Your task to perform on an android device: change notifications settings Image 0: 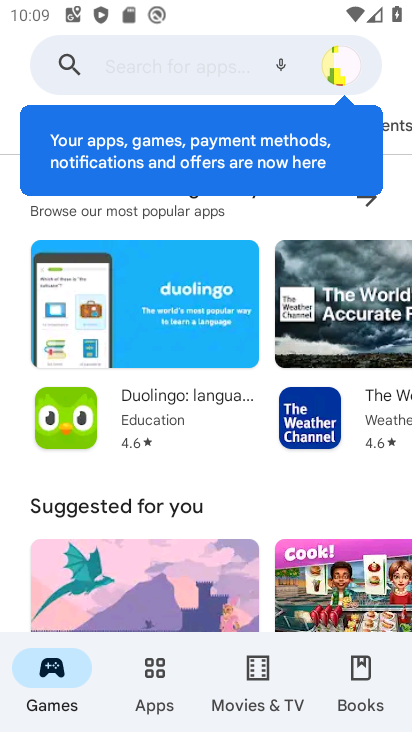
Step 0: press home button
Your task to perform on an android device: change notifications settings Image 1: 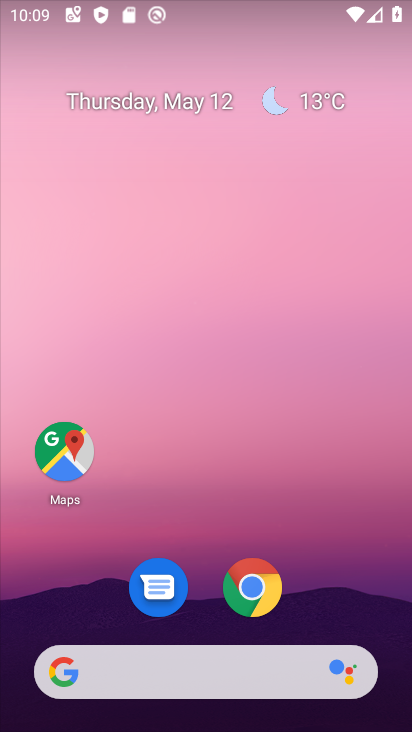
Step 1: drag from (206, 606) to (287, 49)
Your task to perform on an android device: change notifications settings Image 2: 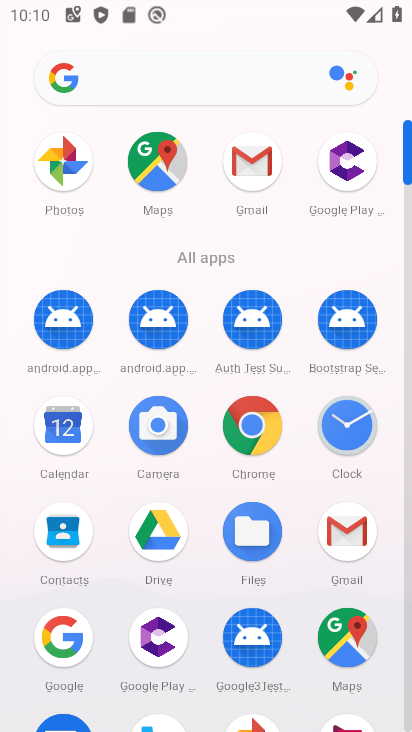
Step 2: drag from (194, 635) to (248, 250)
Your task to perform on an android device: change notifications settings Image 3: 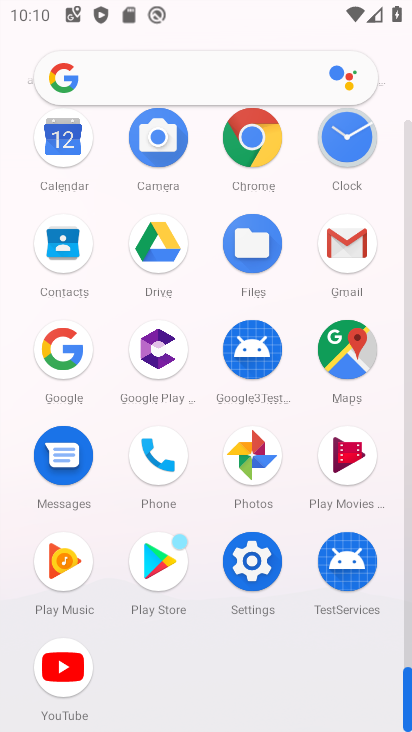
Step 3: click (249, 588)
Your task to perform on an android device: change notifications settings Image 4: 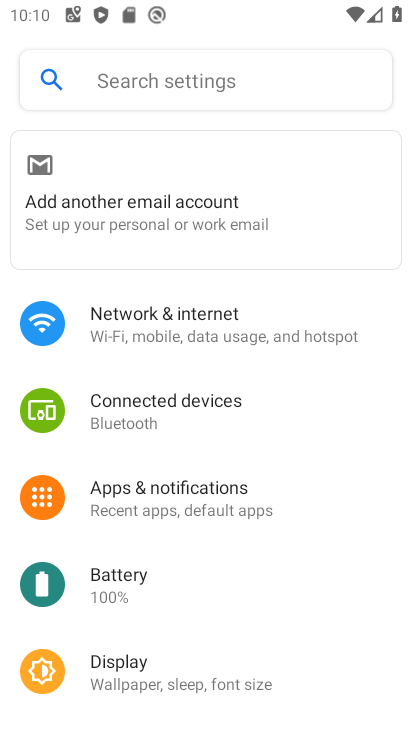
Step 4: click (191, 487)
Your task to perform on an android device: change notifications settings Image 5: 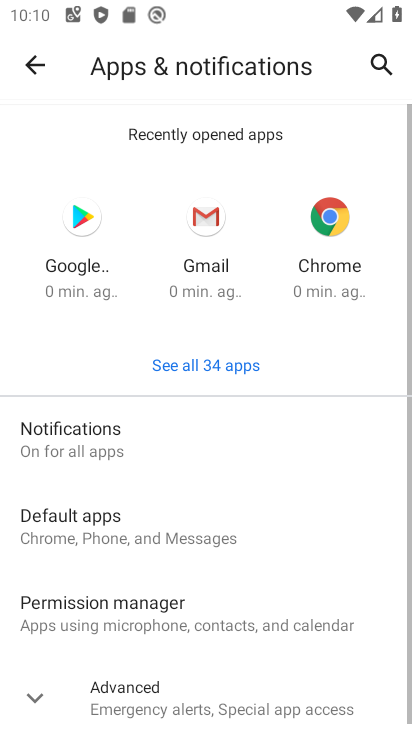
Step 5: click (132, 443)
Your task to perform on an android device: change notifications settings Image 6: 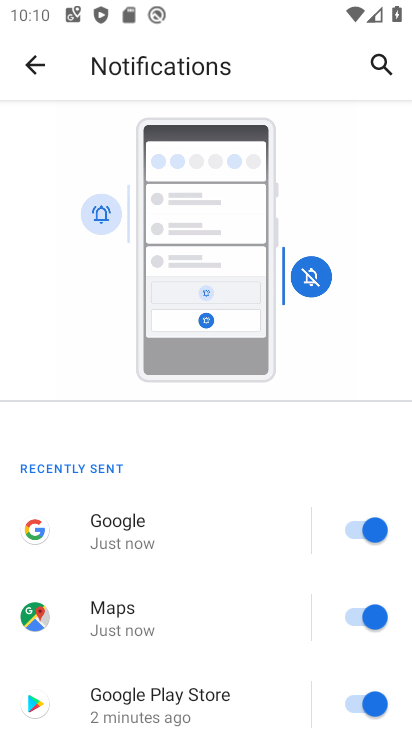
Step 6: drag from (239, 629) to (310, 285)
Your task to perform on an android device: change notifications settings Image 7: 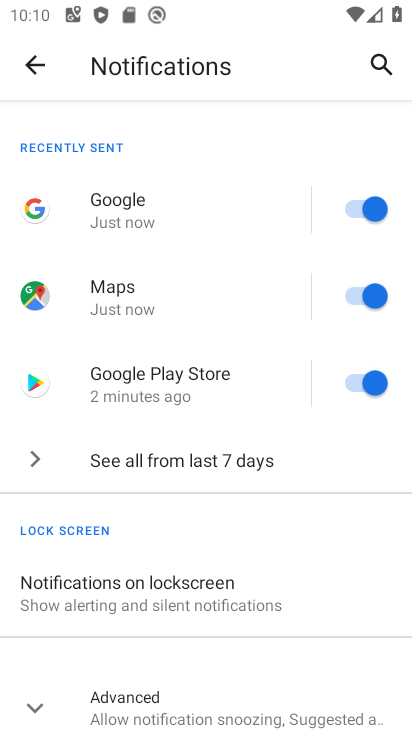
Step 7: click (359, 378)
Your task to perform on an android device: change notifications settings Image 8: 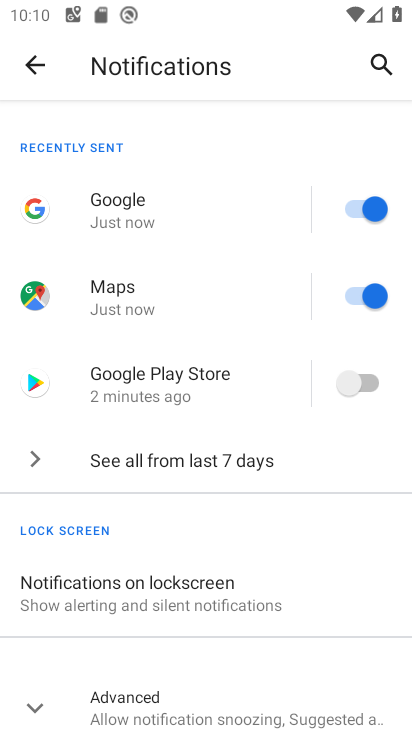
Step 8: click (371, 309)
Your task to perform on an android device: change notifications settings Image 9: 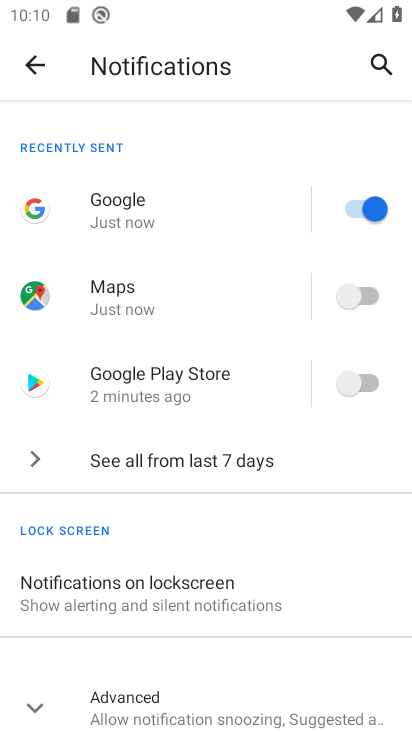
Step 9: task complete